Your task to perform on an android device: turn off location history Image 0: 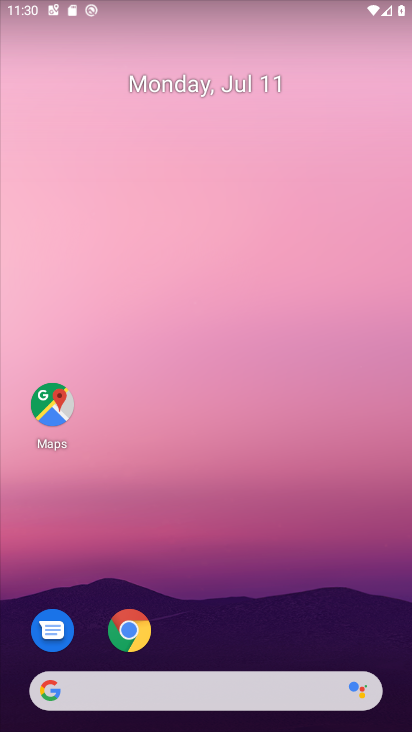
Step 0: drag from (259, 574) to (269, 118)
Your task to perform on an android device: turn off location history Image 1: 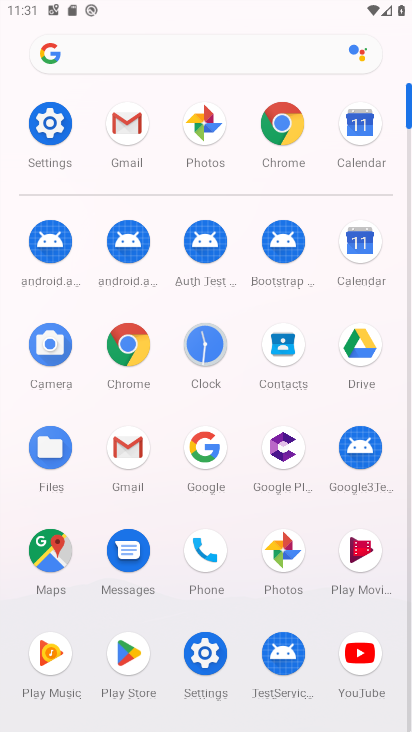
Step 1: click (207, 657)
Your task to perform on an android device: turn off location history Image 2: 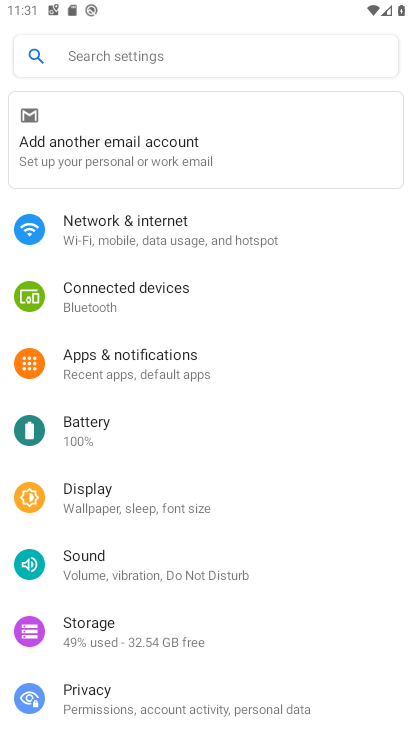
Step 2: drag from (160, 594) to (179, 414)
Your task to perform on an android device: turn off location history Image 3: 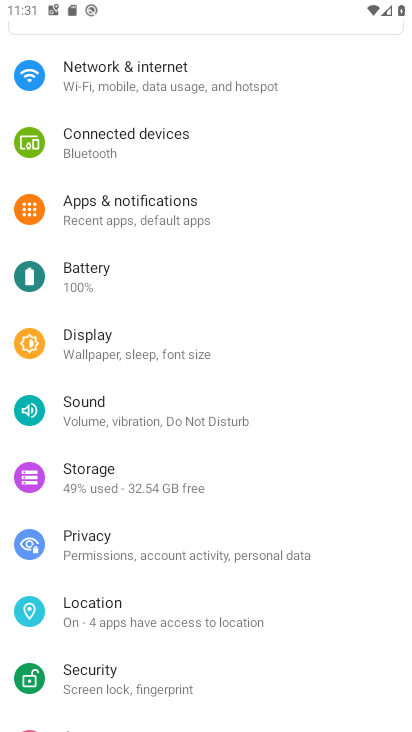
Step 3: click (138, 609)
Your task to perform on an android device: turn off location history Image 4: 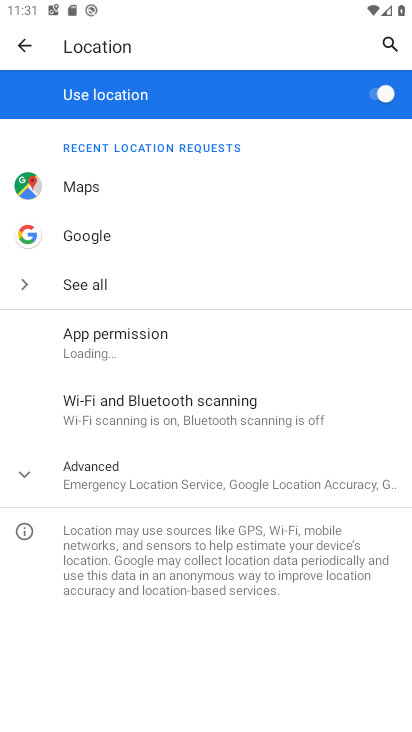
Step 4: click (116, 471)
Your task to perform on an android device: turn off location history Image 5: 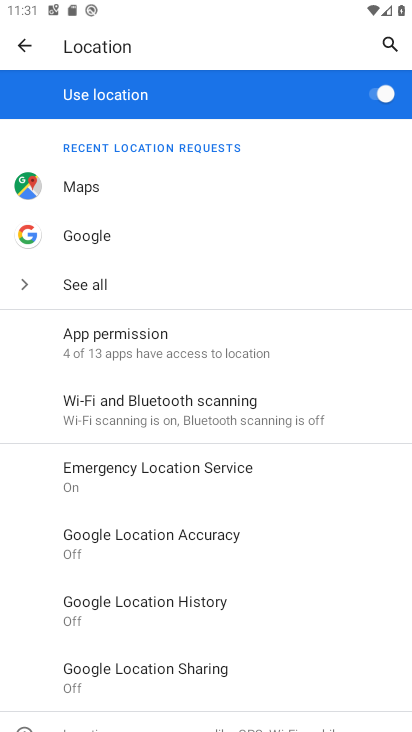
Step 5: click (152, 612)
Your task to perform on an android device: turn off location history Image 6: 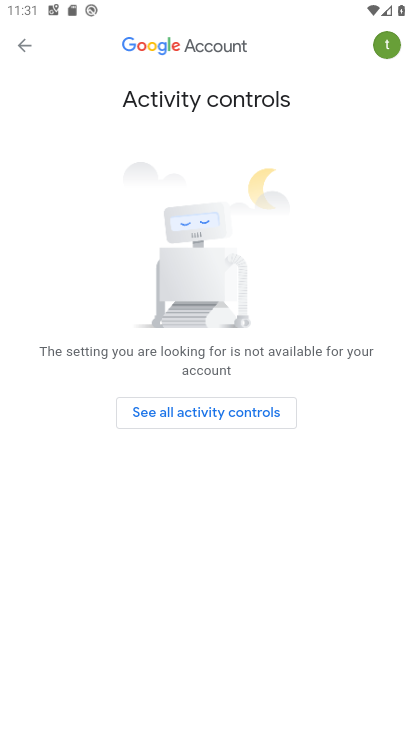
Step 6: click (218, 415)
Your task to perform on an android device: turn off location history Image 7: 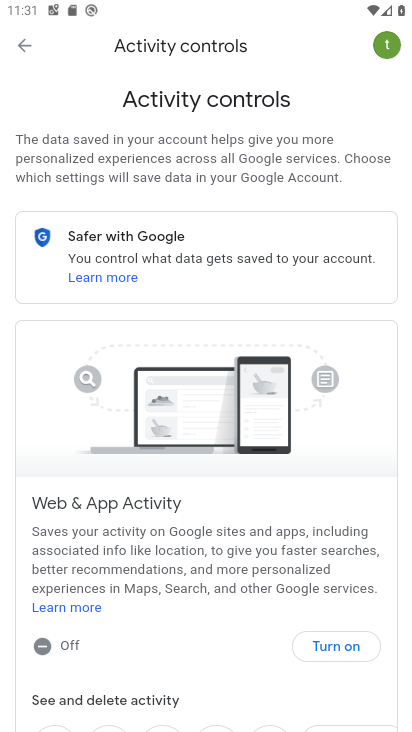
Step 7: task complete